Your task to perform on an android device: Show me popular games on the Play Store Image 0: 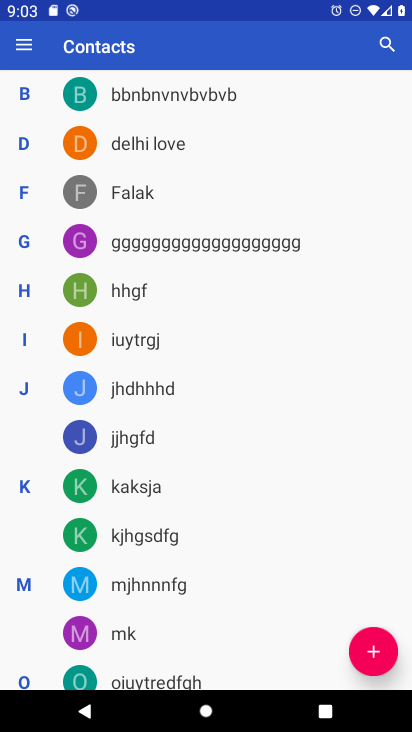
Step 0: press home button
Your task to perform on an android device: Show me popular games on the Play Store Image 1: 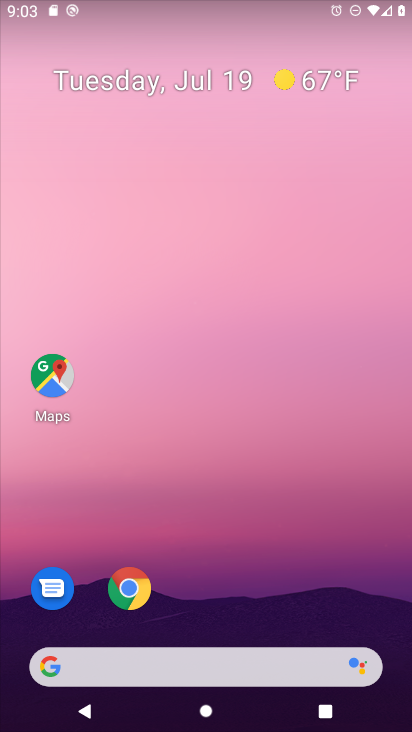
Step 1: drag from (337, 605) to (334, 152)
Your task to perform on an android device: Show me popular games on the Play Store Image 2: 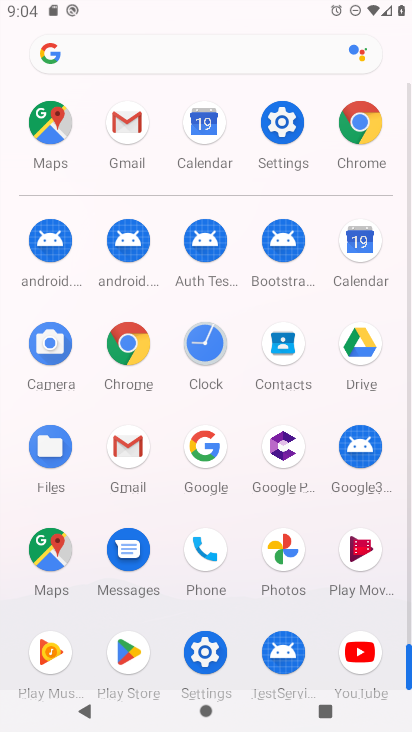
Step 2: click (121, 650)
Your task to perform on an android device: Show me popular games on the Play Store Image 3: 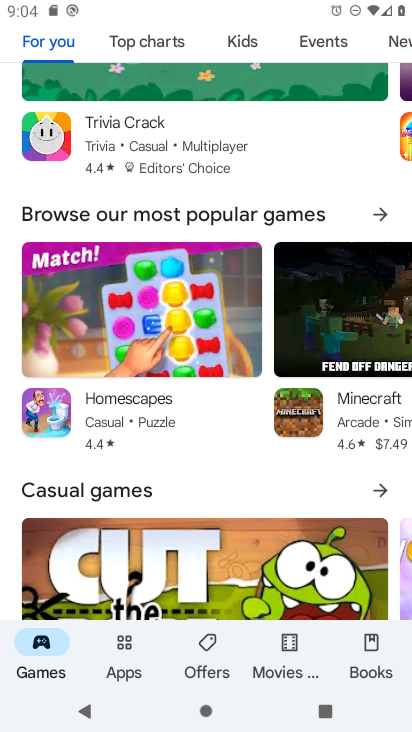
Step 3: task complete